Your task to perform on an android device: Open internet settings Image 0: 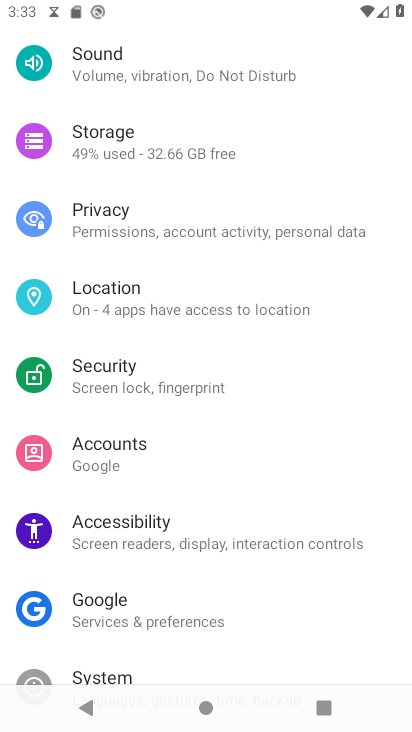
Step 0: drag from (157, 260) to (210, 549)
Your task to perform on an android device: Open internet settings Image 1: 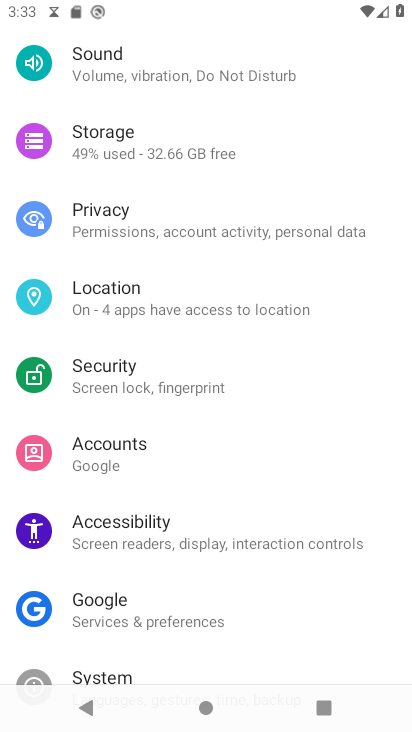
Step 1: drag from (196, 167) to (197, 509)
Your task to perform on an android device: Open internet settings Image 2: 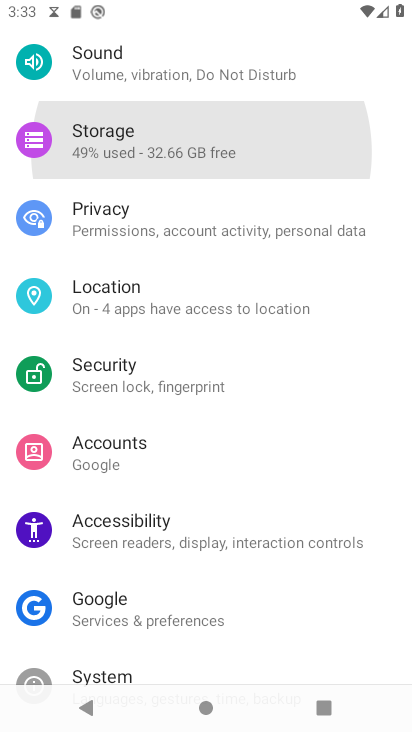
Step 2: drag from (159, 193) to (159, 520)
Your task to perform on an android device: Open internet settings Image 3: 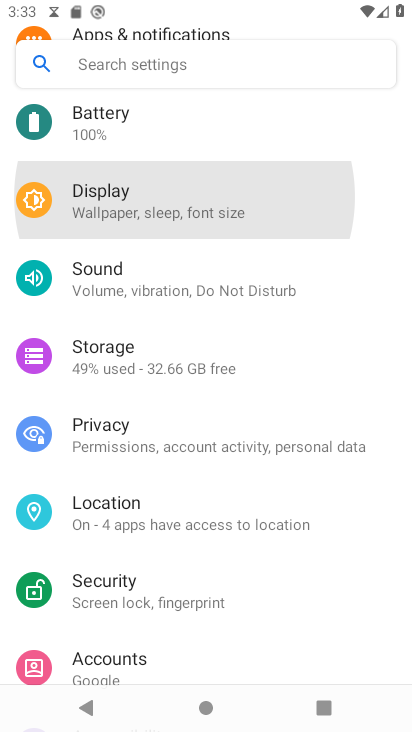
Step 3: drag from (177, 201) to (238, 521)
Your task to perform on an android device: Open internet settings Image 4: 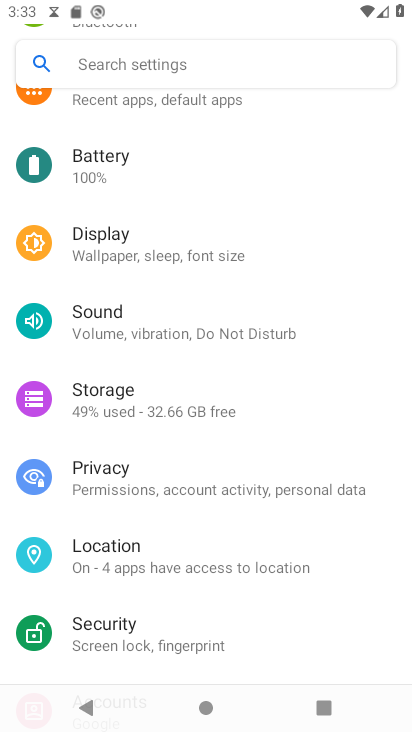
Step 4: drag from (99, 136) to (193, 527)
Your task to perform on an android device: Open internet settings Image 5: 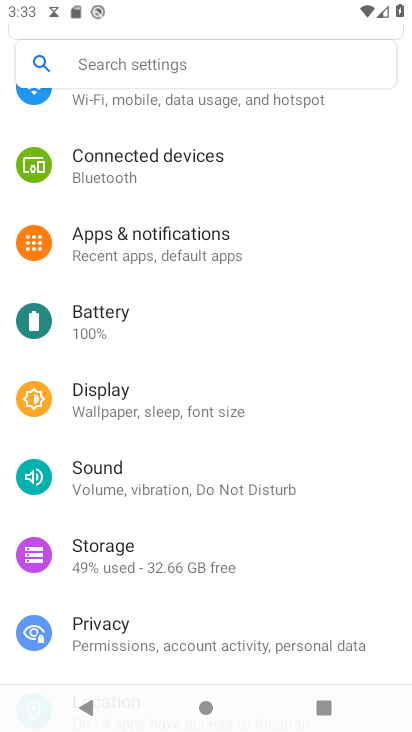
Step 5: drag from (190, 455) to (200, 623)
Your task to perform on an android device: Open internet settings Image 6: 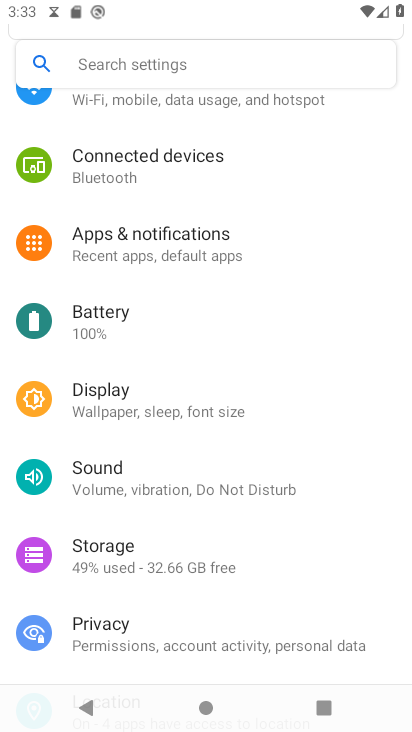
Step 6: drag from (207, 253) to (211, 601)
Your task to perform on an android device: Open internet settings Image 7: 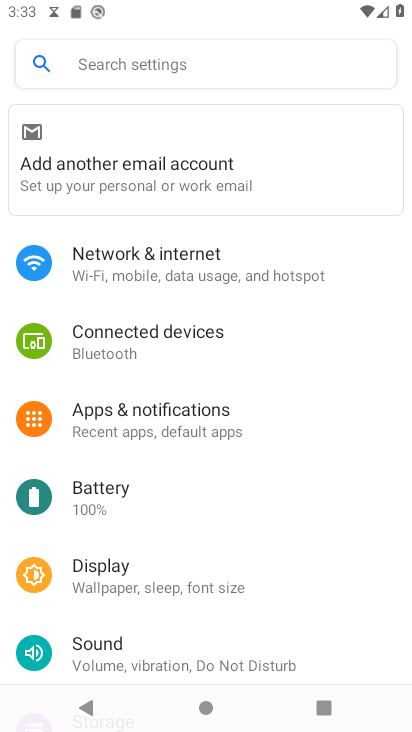
Step 7: drag from (131, 85) to (221, 581)
Your task to perform on an android device: Open internet settings Image 8: 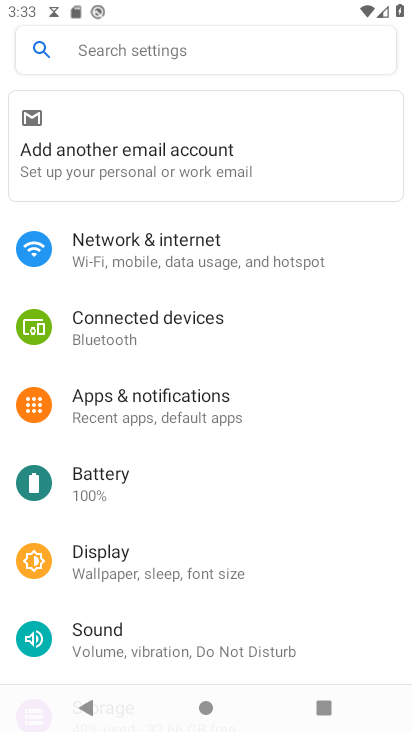
Step 8: drag from (172, 435) to (170, 523)
Your task to perform on an android device: Open internet settings Image 9: 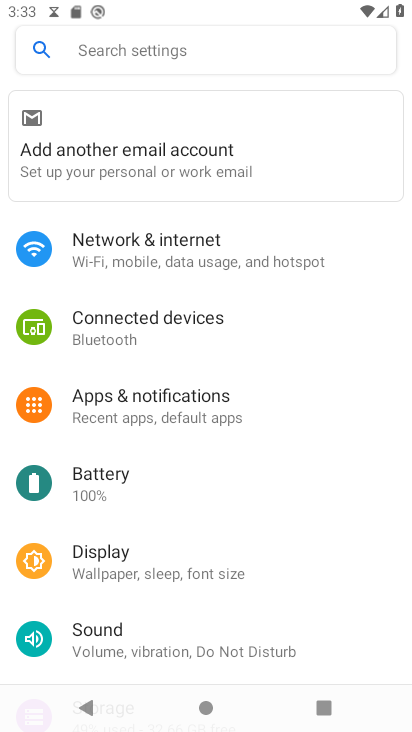
Step 9: click (149, 247)
Your task to perform on an android device: Open internet settings Image 10: 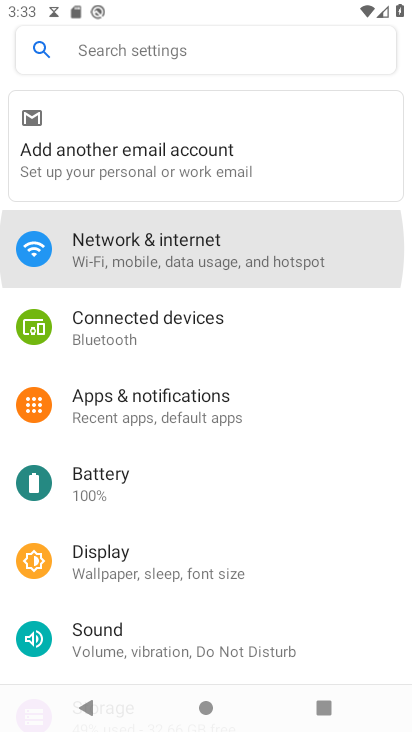
Step 10: click (149, 247)
Your task to perform on an android device: Open internet settings Image 11: 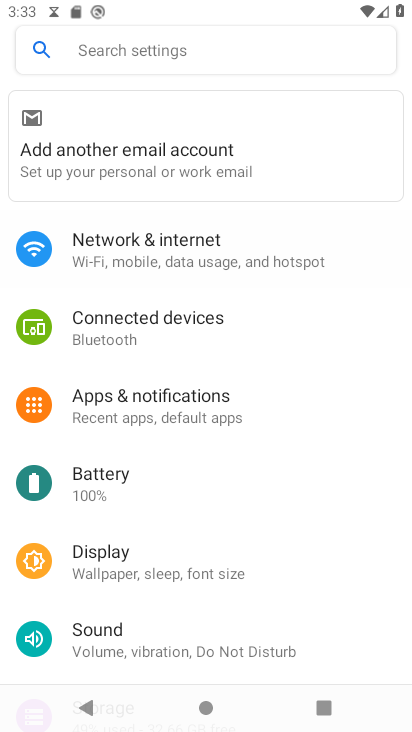
Step 11: click (149, 248)
Your task to perform on an android device: Open internet settings Image 12: 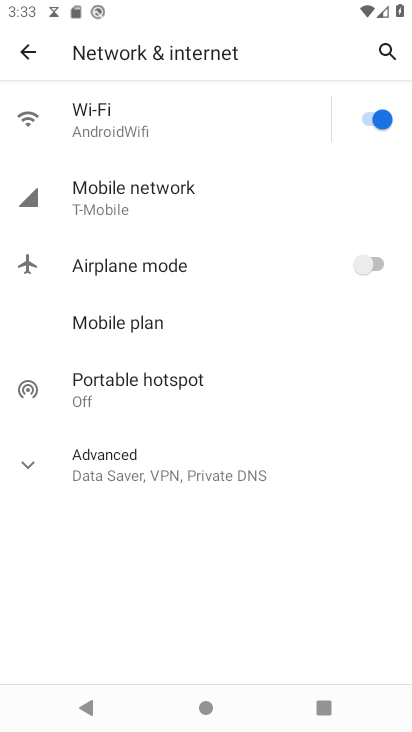
Step 12: task complete